Your task to perform on an android device: turn off picture-in-picture Image 0: 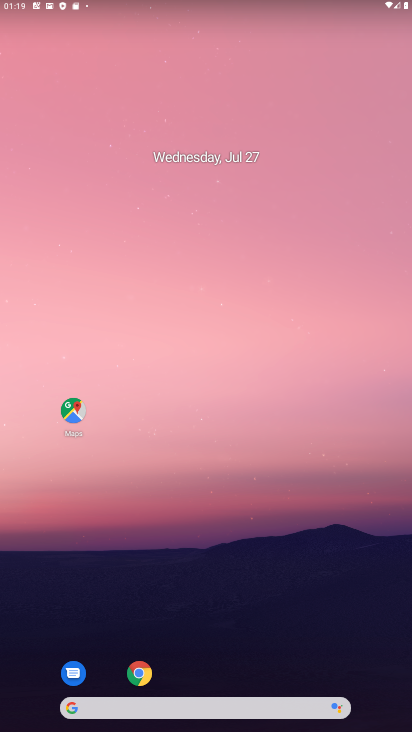
Step 0: drag from (252, 486) to (268, 85)
Your task to perform on an android device: turn off picture-in-picture Image 1: 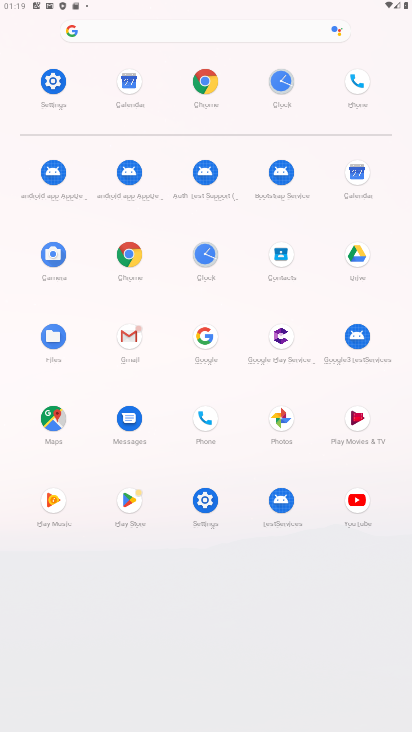
Step 1: click (201, 494)
Your task to perform on an android device: turn off picture-in-picture Image 2: 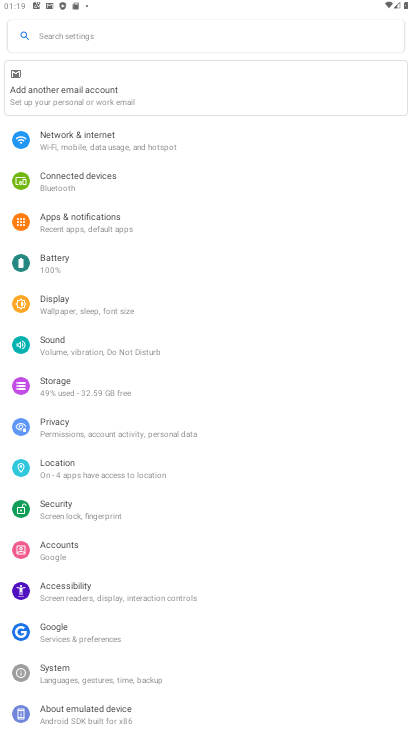
Step 2: click (88, 211)
Your task to perform on an android device: turn off picture-in-picture Image 3: 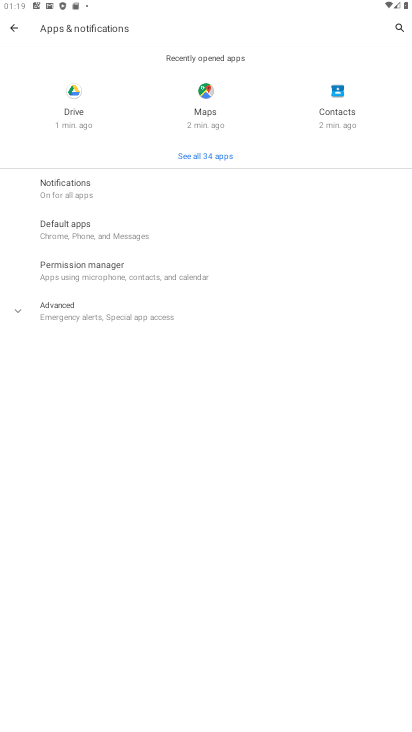
Step 3: click (82, 181)
Your task to perform on an android device: turn off picture-in-picture Image 4: 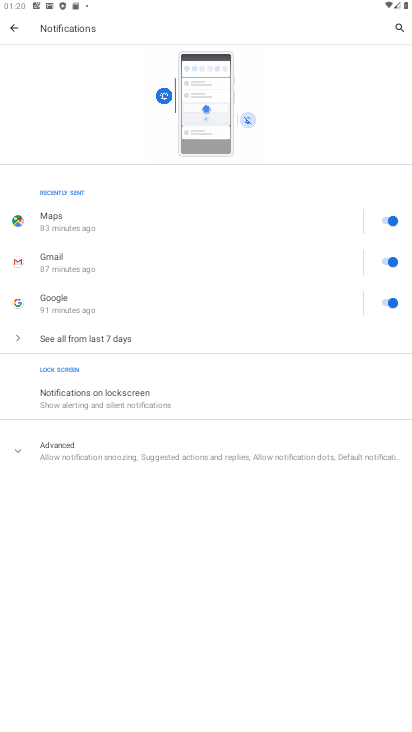
Step 4: click (144, 397)
Your task to perform on an android device: turn off picture-in-picture Image 5: 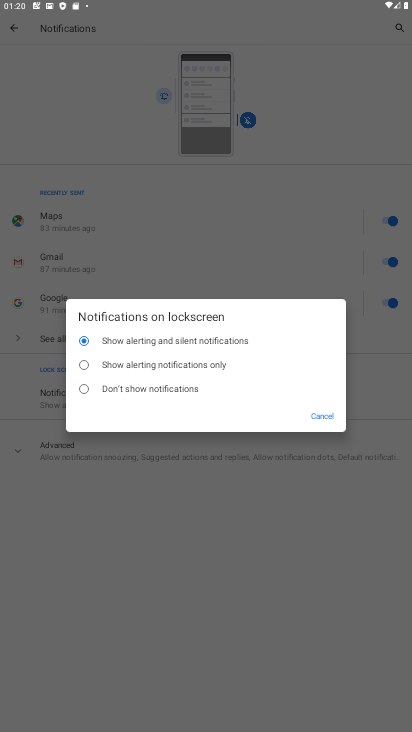
Step 5: click (304, 417)
Your task to perform on an android device: turn off picture-in-picture Image 6: 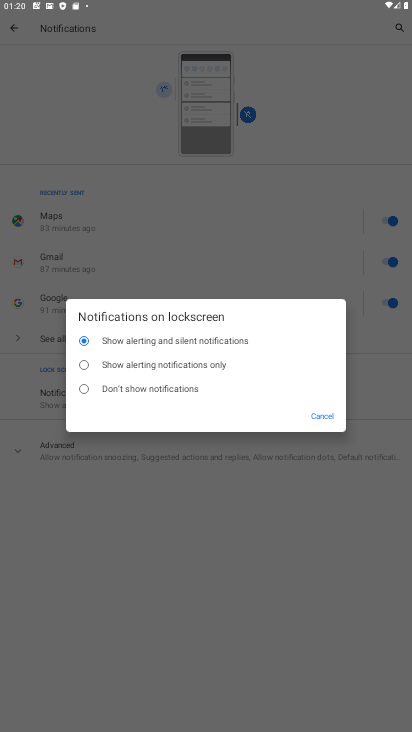
Step 6: click (202, 473)
Your task to perform on an android device: turn off picture-in-picture Image 7: 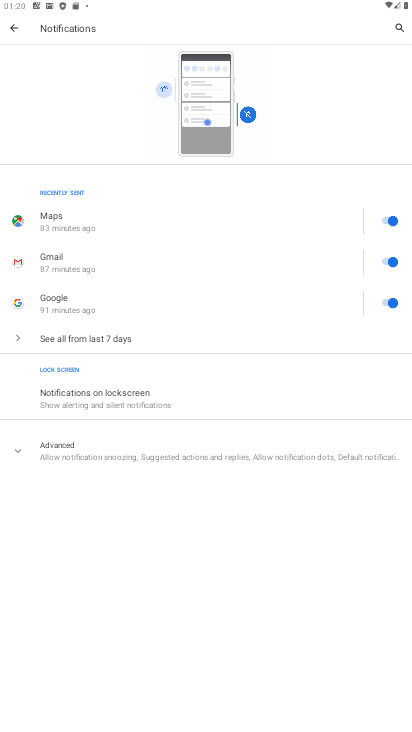
Step 7: click (111, 446)
Your task to perform on an android device: turn off picture-in-picture Image 8: 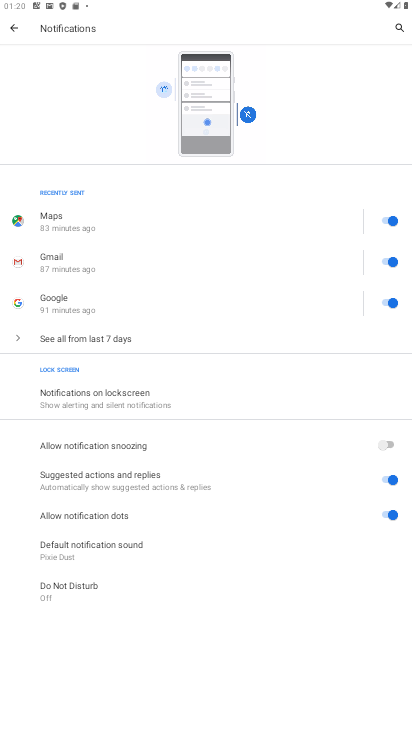
Step 8: click (118, 406)
Your task to perform on an android device: turn off picture-in-picture Image 9: 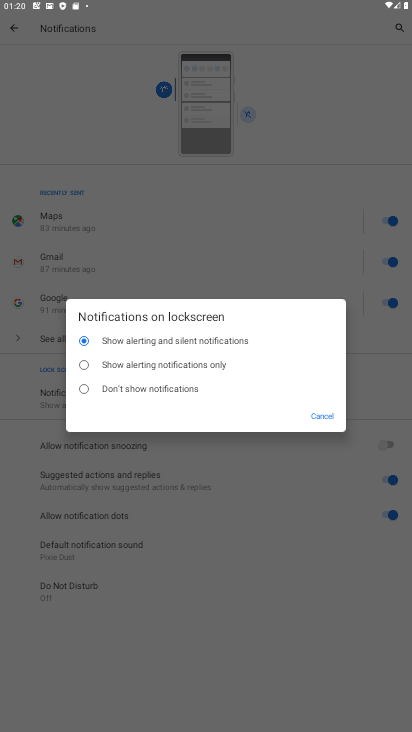
Step 9: click (213, 554)
Your task to perform on an android device: turn off picture-in-picture Image 10: 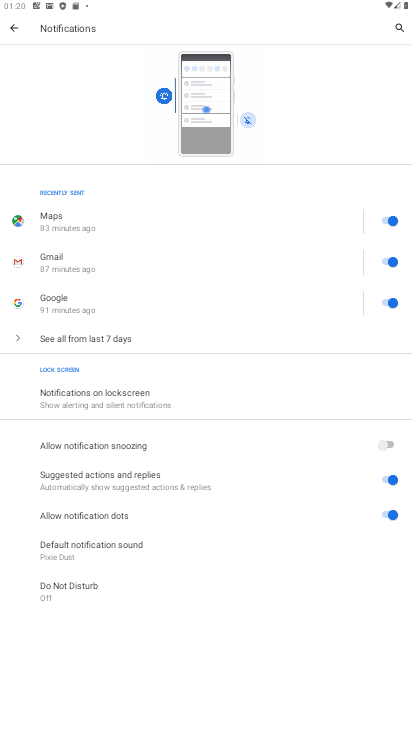
Step 10: click (27, 29)
Your task to perform on an android device: turn off picture-in-picture Image 11: 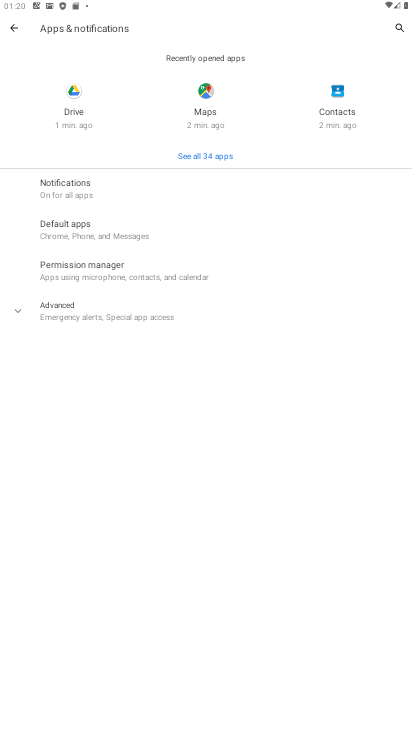
Step 11: click (157, 315)
Your task to perform on an android device: turn off picture-in-picture Image 12: 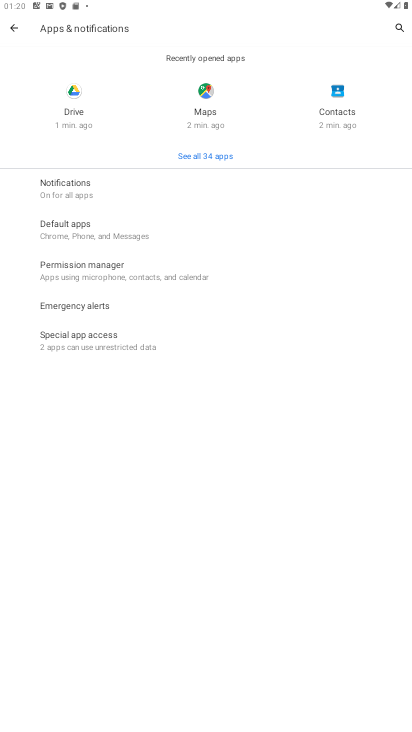
Step 12: click (114, 341)
Your task to perform on an android device: turn off picture-in-picture Image 13: 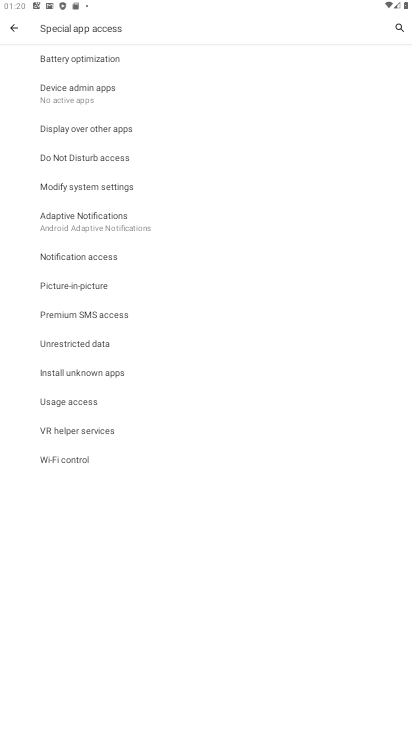
Step 13: click (80, 279)
Your task to perform on an android device: turn off picture-in-picture Image 14: 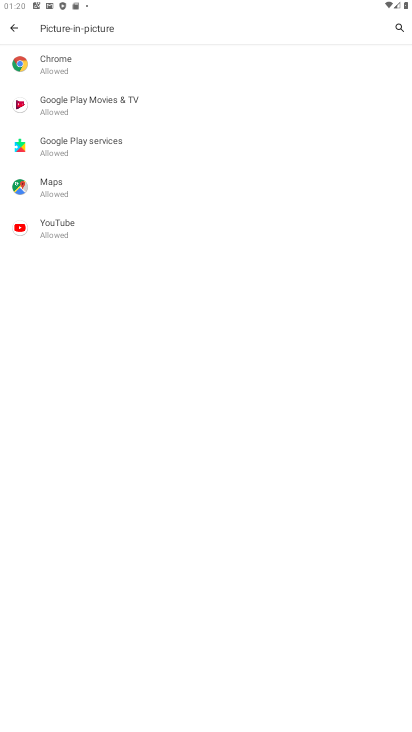
Step 14: click (70, 224)
Your task to perform on an android device: turn off picture-in-picture Image 15: 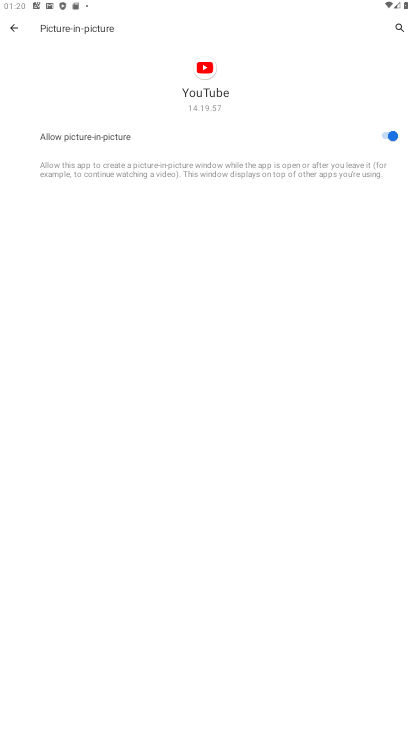
Step 15: click (387, 138)
Your task to perform on an android device: turn off picture-in-picture Image 16: 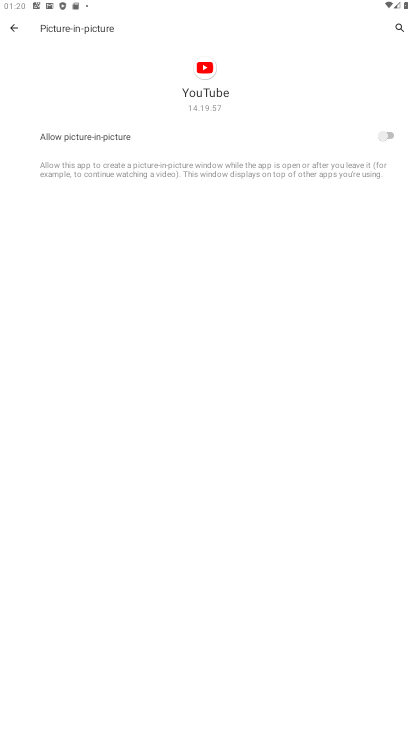
Step 16: task complete